Your task to perform on an android device: toggle sleep mode Image 0: 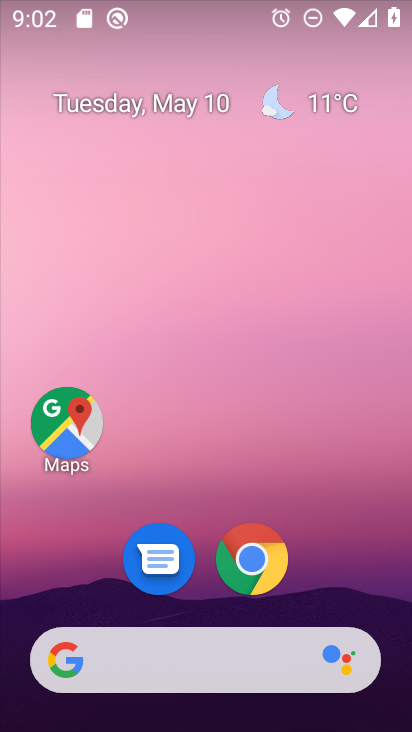
Step 0: drag from (219, 721) to (219, 233)
Your task to perform on an android device: toggle sleep mode Image 1: 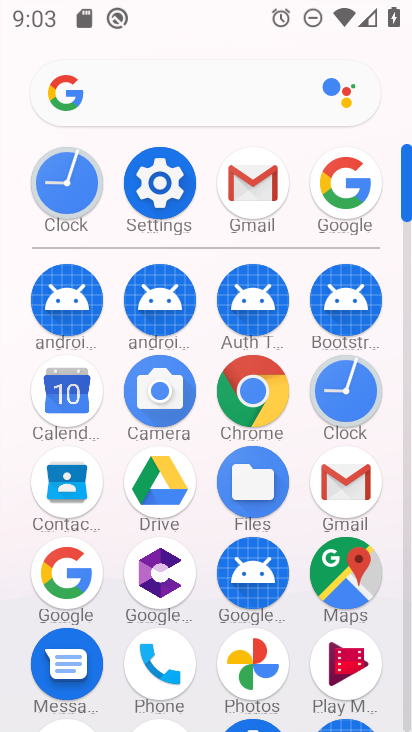
Step 1: click (159, 189)
Your task to perform on an android device: toggle sleep mode Image 2: 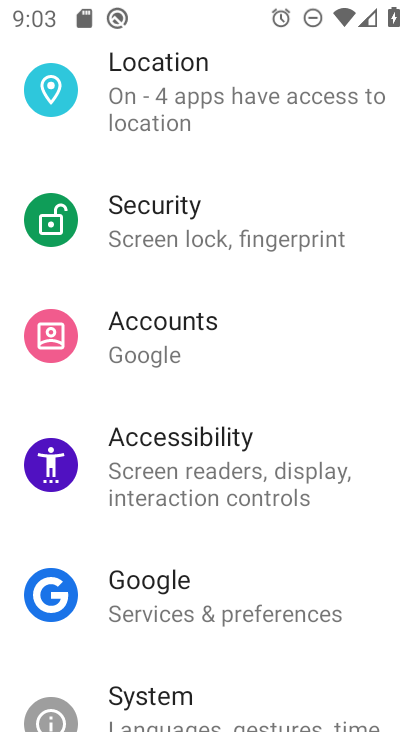
Step 2: task complete